Your task to perform on an android device: show emergency info Image 0: 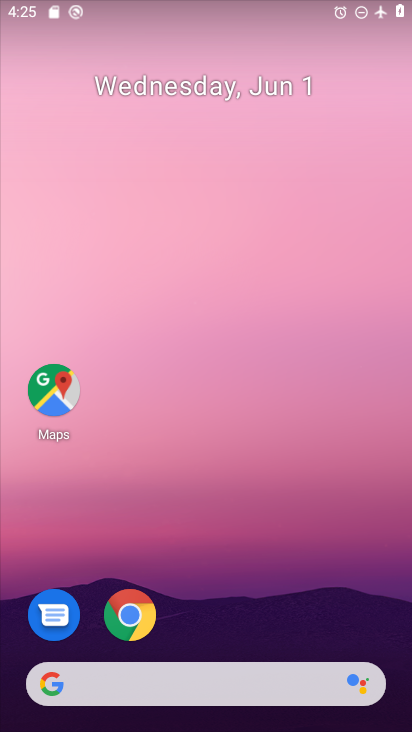
Step 0: press home button
Your task to perform on an android device: show emergency info Image 1: 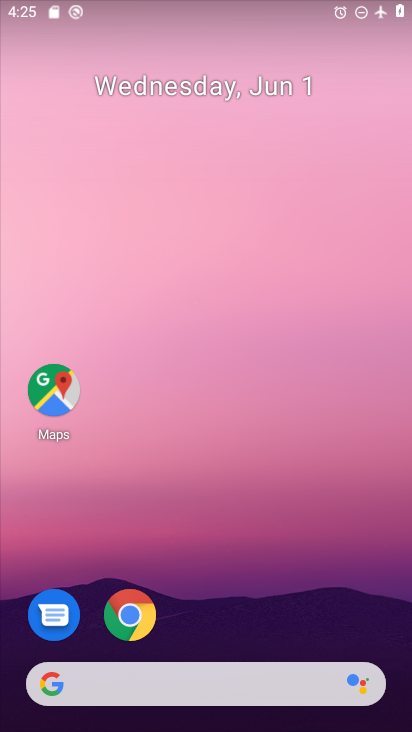
Step 1: drag from (210, 647) to (221, 41)
Your task to perform on an android device: show emergency info Image 2: 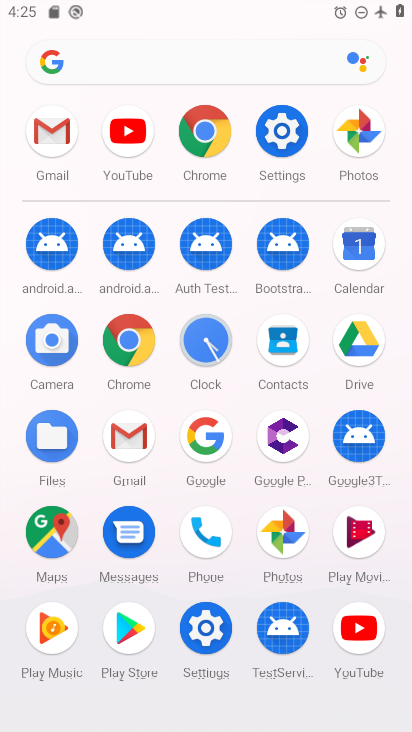
Step 2: click (204, 631)
Your task to perform on an android device: show emergency info Image 3: 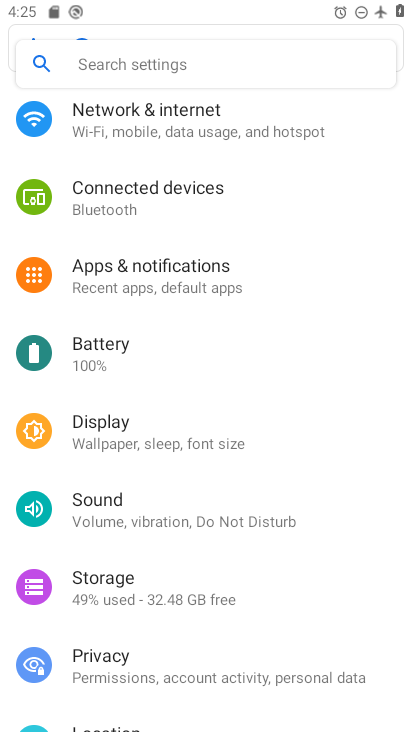
Step 3: drag from (166, 653) to (179, 261)
Your task to perform on an android device: show emergency info Image 4: 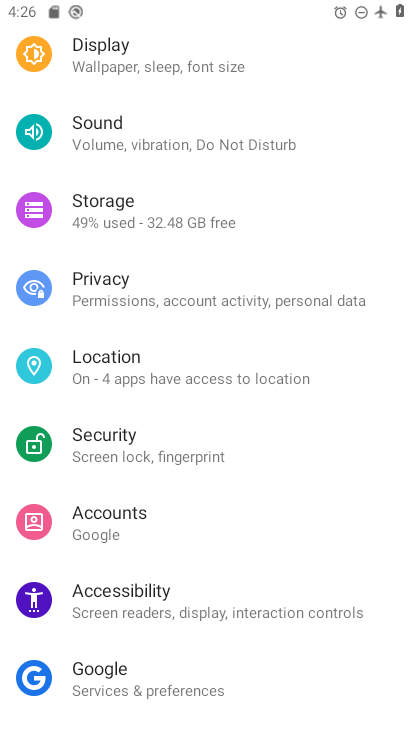
Step 4: drag from (180, 657) to (192, 258)
Your task to perform on an android device: show emergency info Image 5: 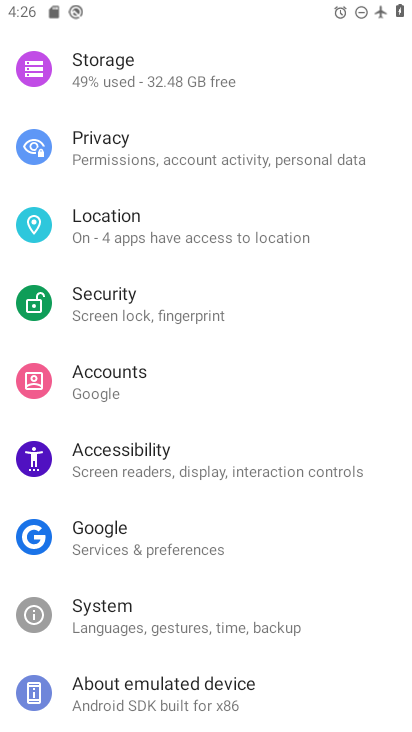
Step 5: click (191, 689)
Your task to perform on an android device: show emergency info Image 6: 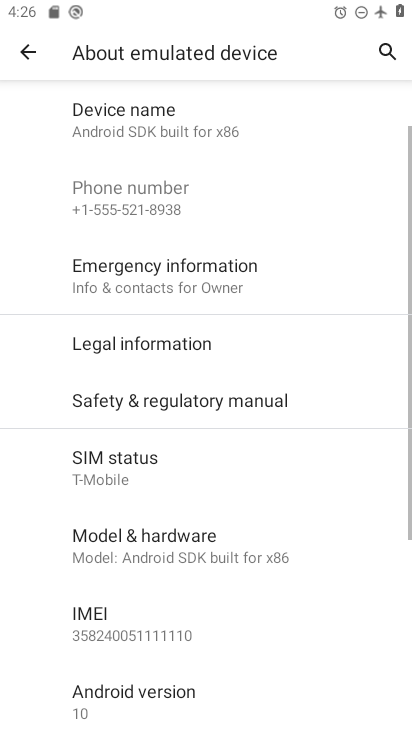
Step 6: click (187, 282)
Your task to perform on an android device: show emergency info Image 7: 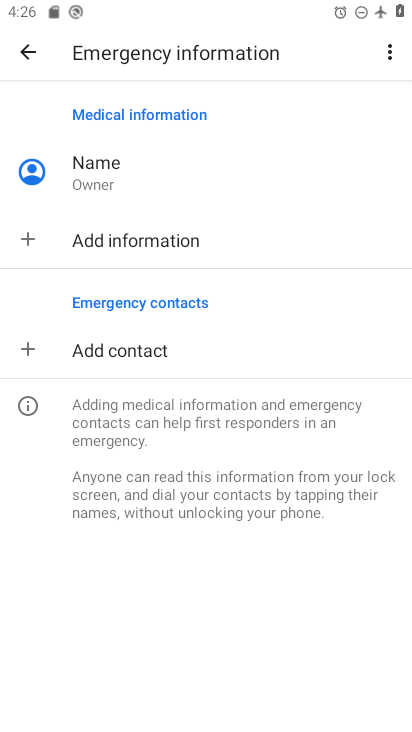
Step 7: task complete